Your task to perform on an android device: toggle improve location accuracy Image 0: 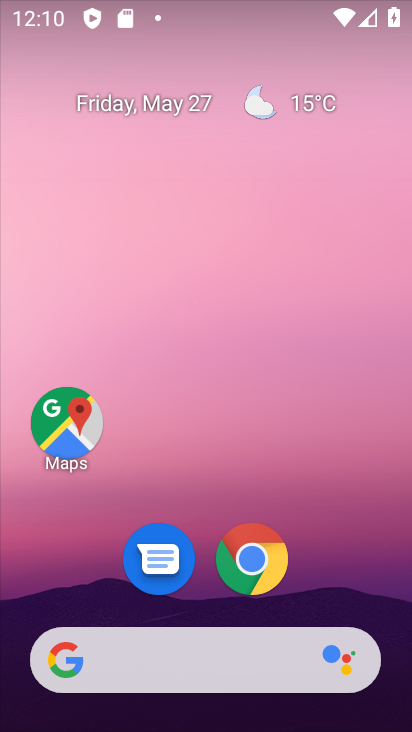
Step 0: drag from (345, 494) to (265, 23)
Your task to perform on an android device: toggle improve location accuracy Image 1: 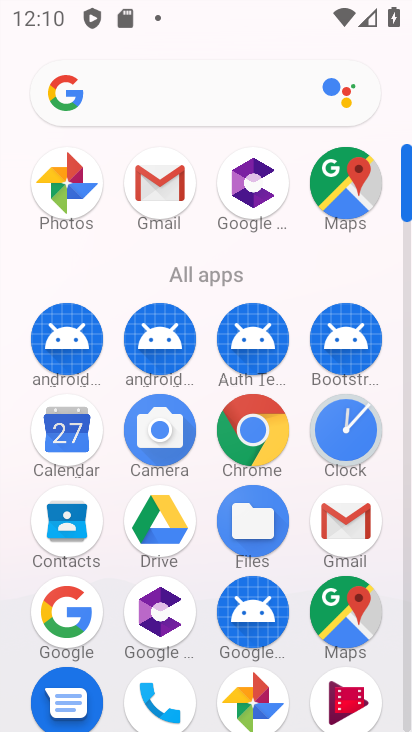
Step 1: drag from (262, 444) to (278, 183)
Your task to perform on an android device: toggle improve location accuracy Image 2: 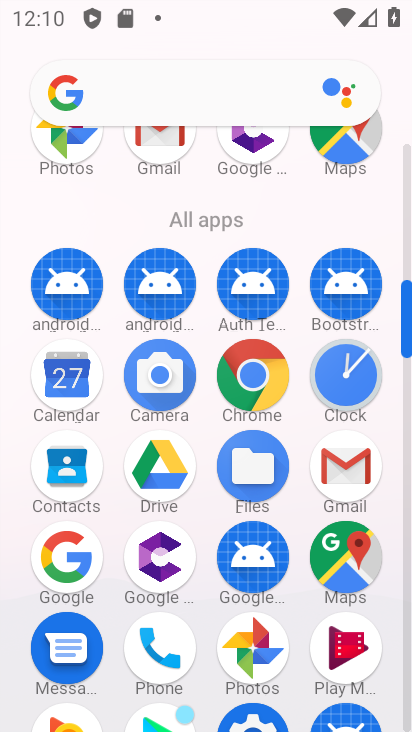
Step 2: click (265, 717)
Your task to perform on an android device: toggle improve location accuracy Image 3: 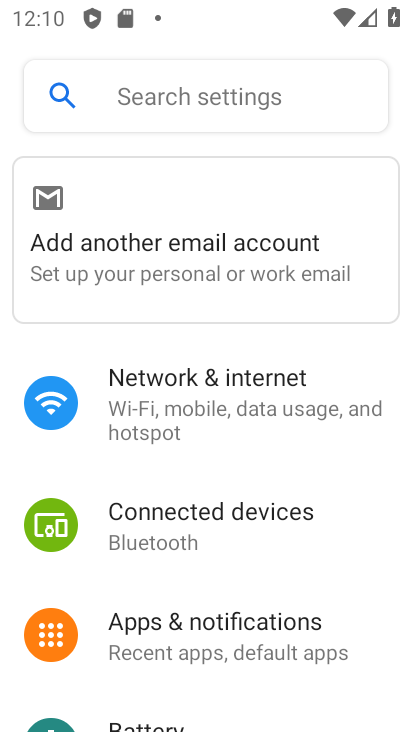
Step 3: drag from (218, 636) to (197, 160)
Your task to perform on an android device: toggle improve location accuracy Image 4: 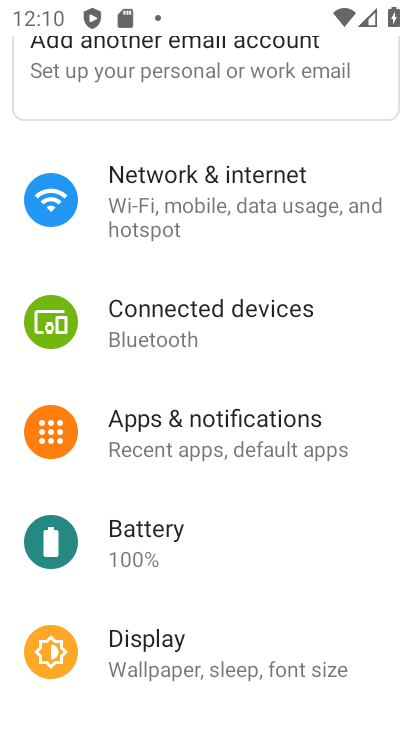
Step 4: drag from (243, 581) to (262, 143)
Your task to perform on an android device: toggle improve location accuracy Image 5: 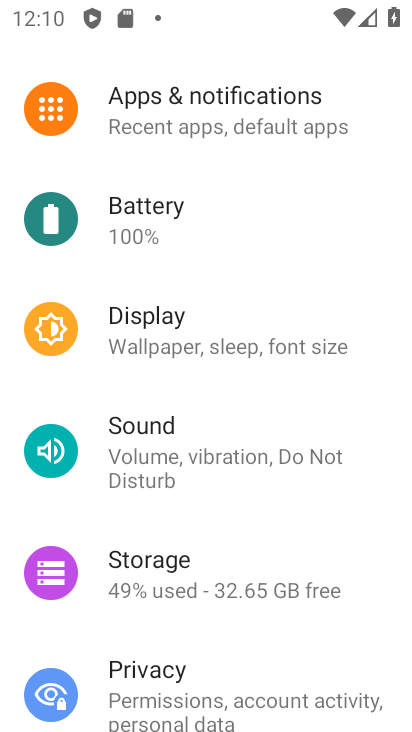
Step 5: drag from (216, 537) to (218, 60)
Your task to perform on an android device: toggle improve location accuracy Image 6: 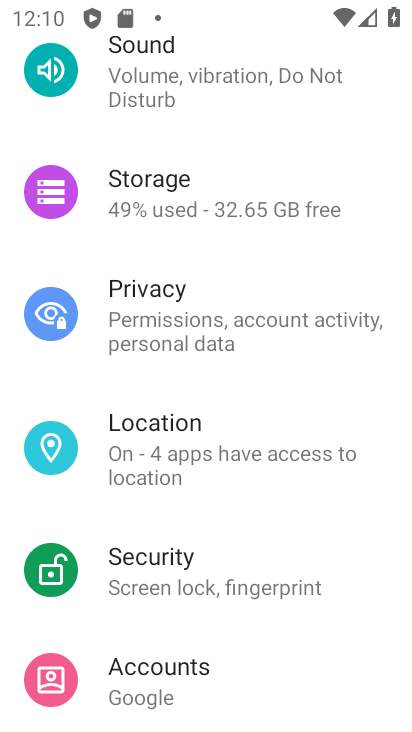
Step 6: drag from (205, 586) to (241, 340)
Your task to perform on an android device: toggle improve location accuracy Image 7: 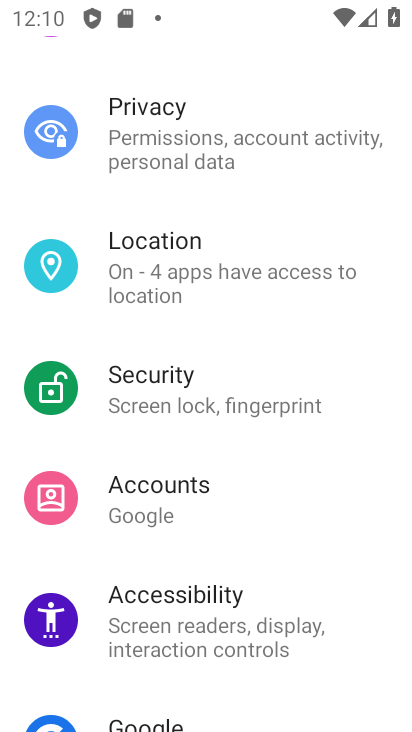
Step 7: click (192, 277)
Your task to perform on an android device: toggle improve location accuracy Image 8: 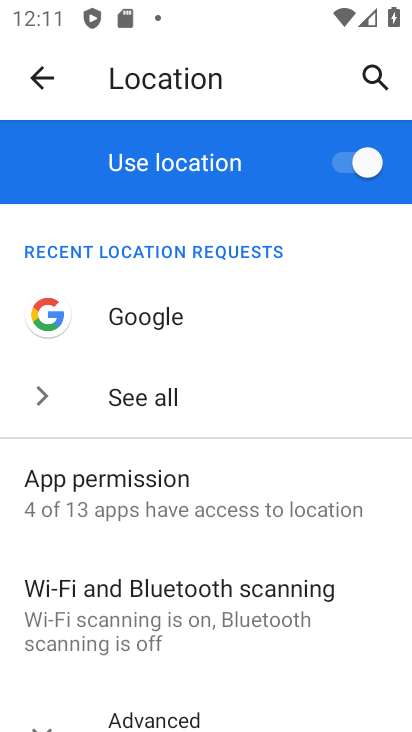
Step 8: drag from (230, 470) to (249, 245)
Your task to perform on an android device: toggle improve location accuracy Image 9: 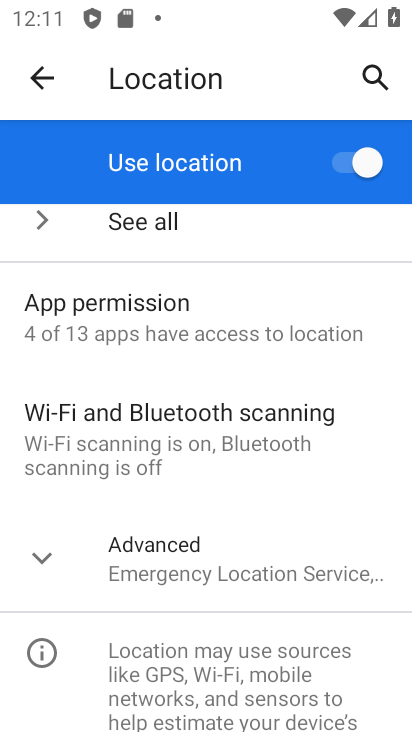
Step 9: click (214, 548)
Your task to perform on an android device: toggle improve location accuracy Image 10: 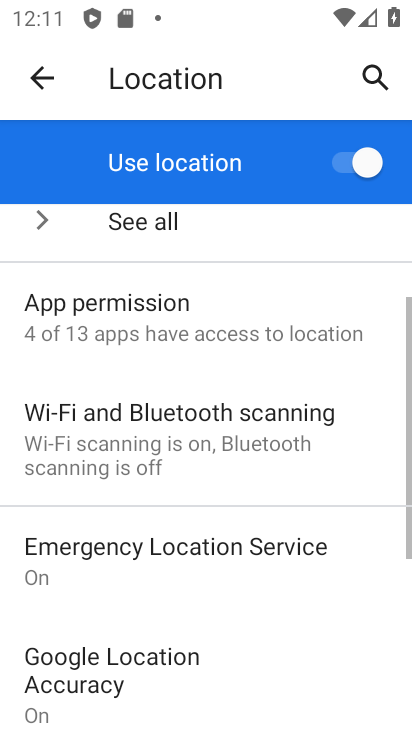
Step 10: drag from (240, 627) to (268, 184)
Your task to perform on an android device: toggle improve location accuracy Image 11: 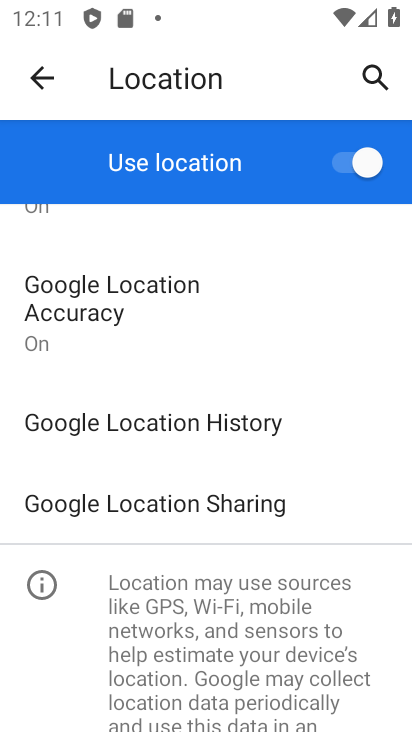
Step 11: click (243, 307)
Your task to perform on an android device: toggle improve location accuracy Image 12: 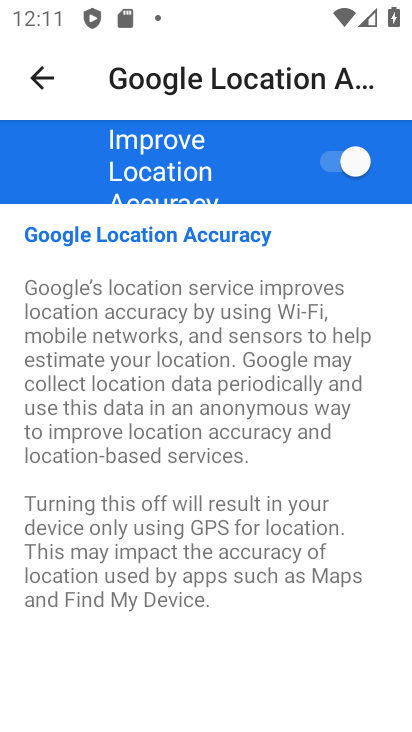
Step 12: click (358, 173)
Your task to perform on an android device: toggle improve location accuracy Image 13: 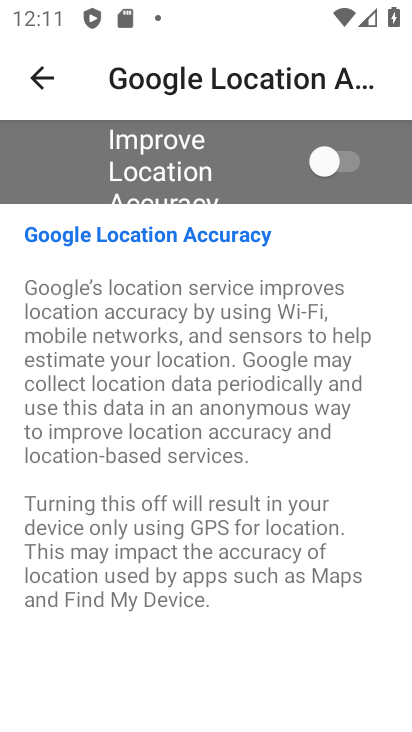
Step 13: task complete